Your task to perform on an android device: see tabs open on other devices in the chrome app Image 0: 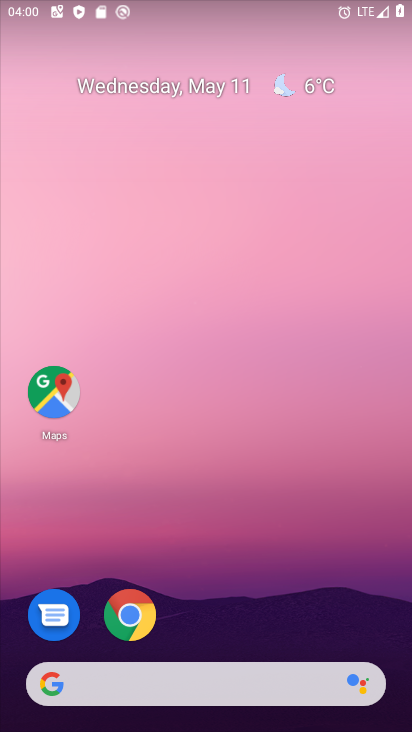
Step 0: click (137, 607)
Your task to perform on an android device: see tabs open on other devices in the chrome app Image 1: 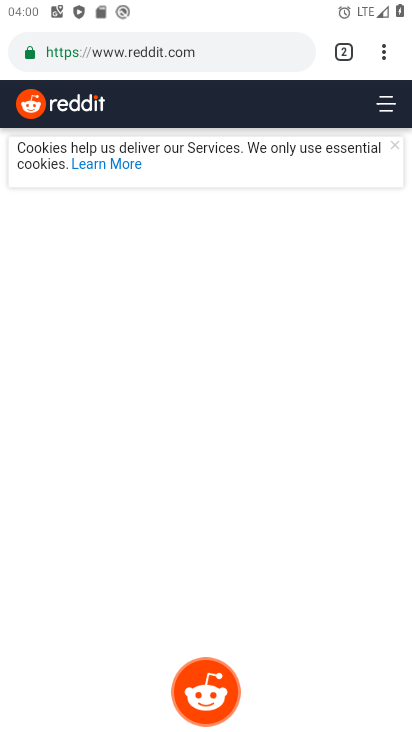
Step 1: task complete